Your task to perform on an android device: Check the settings for the Google Maps app Image 0: 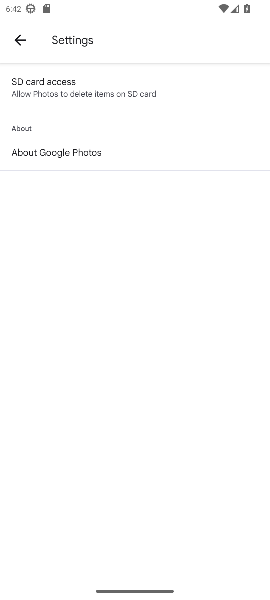
Step 0: press home button
Your task to perform on an android device: Check the settings for the Google Maps app Image 1: 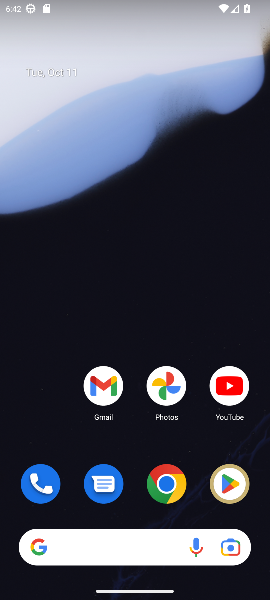
Step 1: drag from (124, 551) to (131, 3)
Your task to perform on an android device: Check the settings for the Google Maps app Image 2: 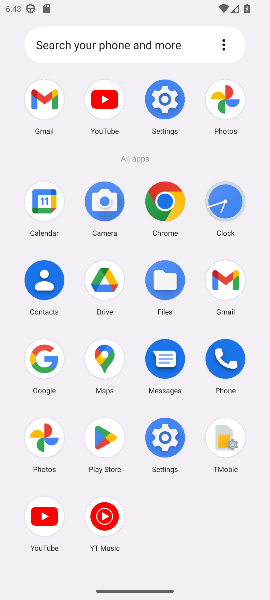
Step 2: click (106, 357)
Your task to perform on an android device: Check the settings for the Google Maps app Image 3: 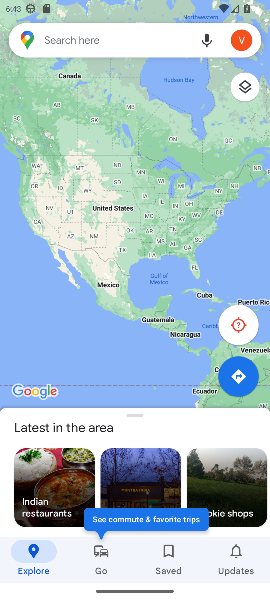
Step 3: click (241, 43)
Your task to perform on an android device: Check the settings for the Google Maps app Image 4: 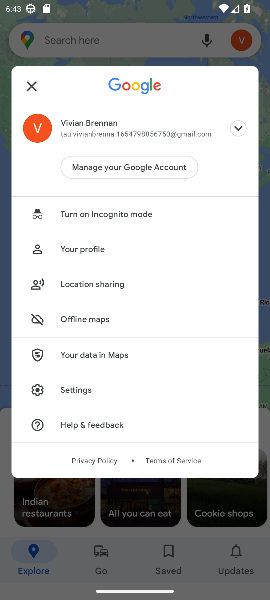
Step 4: click (81, 391)
Your task to perform on an android device: Check the settings for the Google Maps app Image 5: 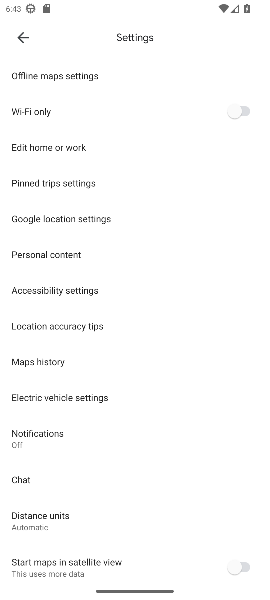
Step 5: task complete